Your task to perform on an android device: Do I have any events this weekend? Image 0: 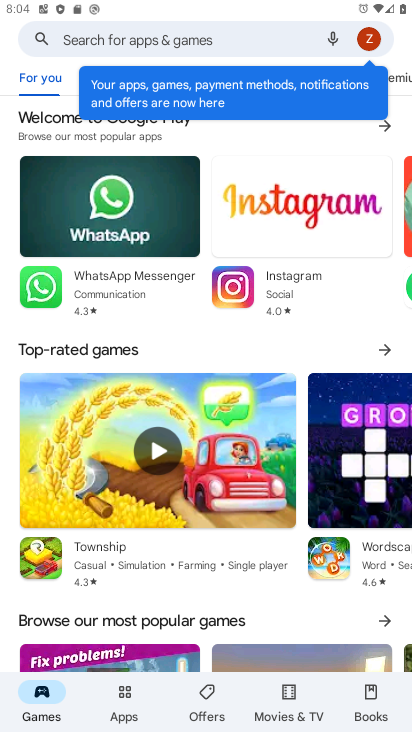
Step 0: press home button
Your task to perform on an android device: Do I have any events this weekend? Image 1: 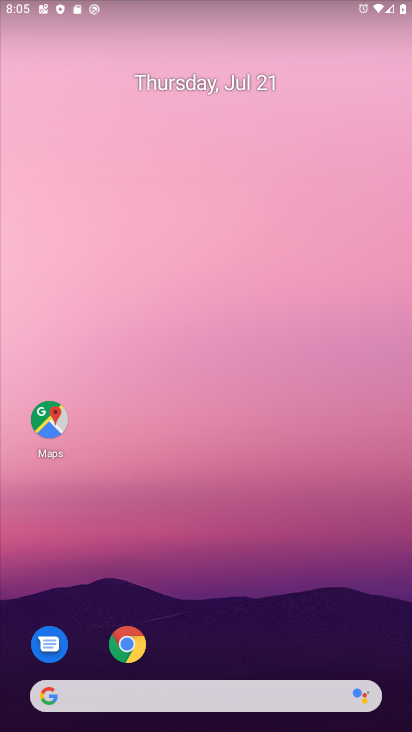
Step 1: drag from (180, 653) to (197, 50)
Your task to perform on an android device: Do I have any events this weekend? Image 2: 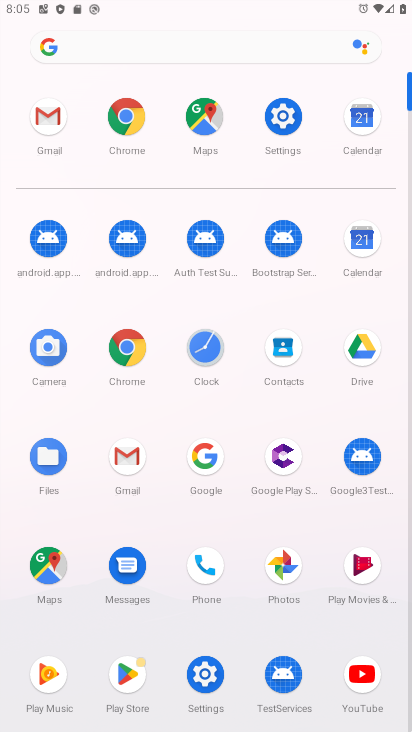
Step 2: click (368, 109)
Your task to perform on an android device: Do I have any events this weekend? Image 3: 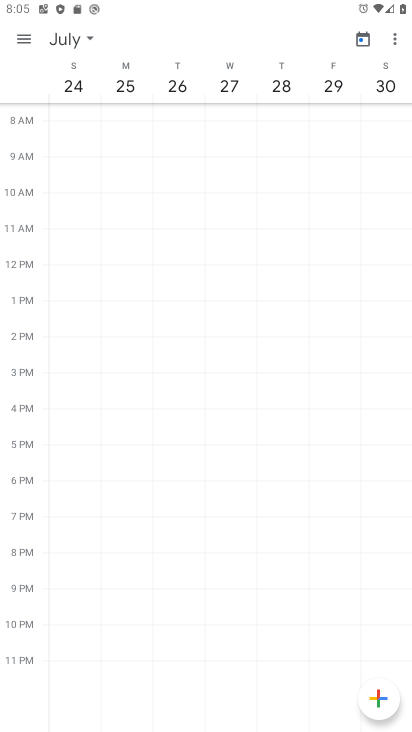
Step 3: task complete